Your task to perform on an android device: Add acer nitro to the cart on bestbuy.com, then select checkout. Image 0: 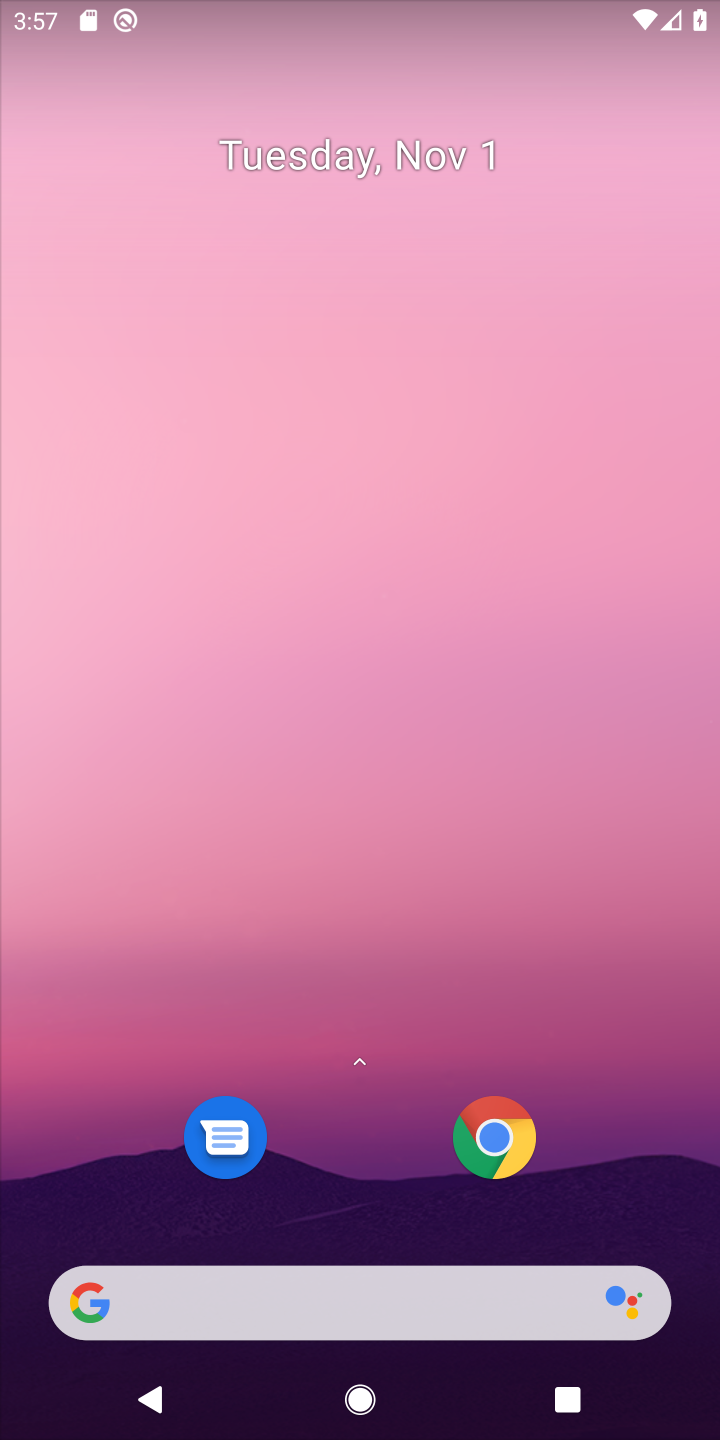
Step 0: click (422, 1289)
Your task to perform on an android device: Add acer nitro to the cart on bestbuy.com, then select checkout. Image 1: 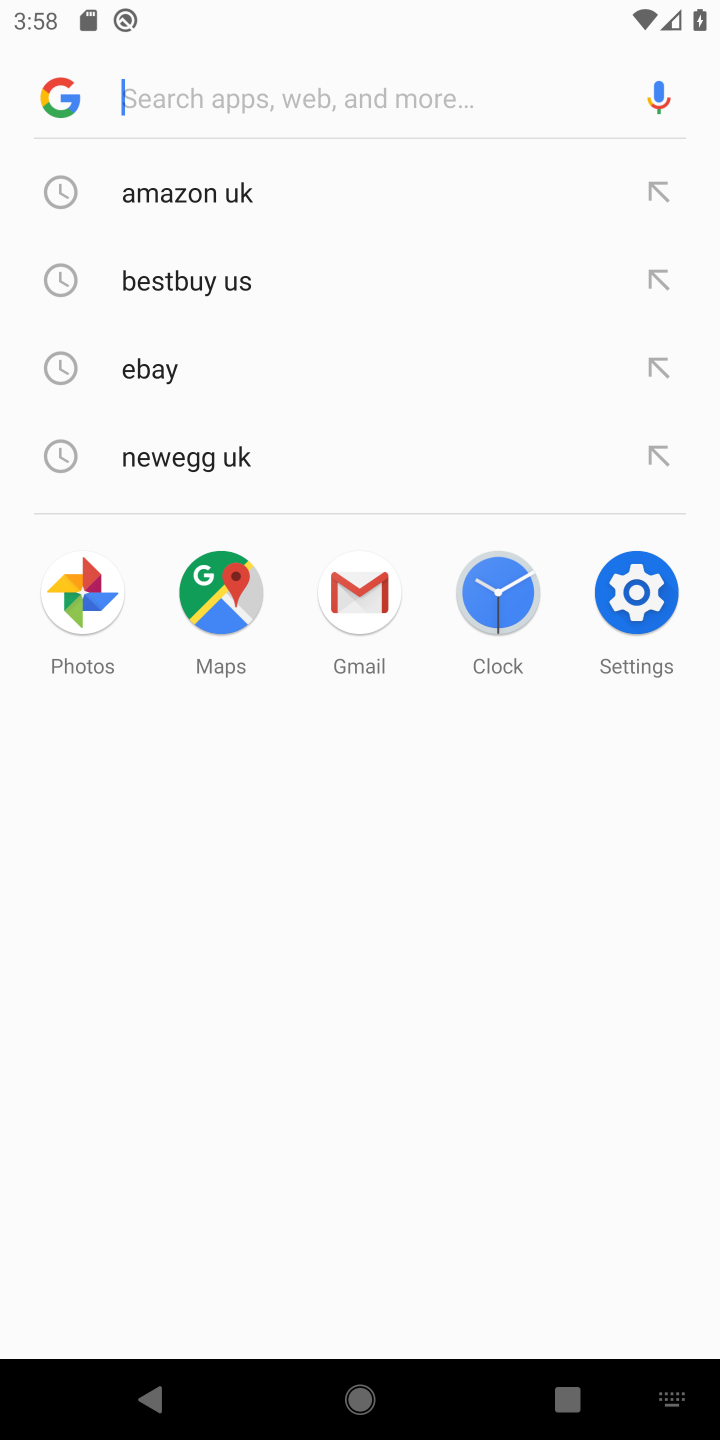
Step 1: click (371, 294)
Your task to perform on an android device: Add acer nitro to the cart on bestbuy.com, then select checkout. Image 2: 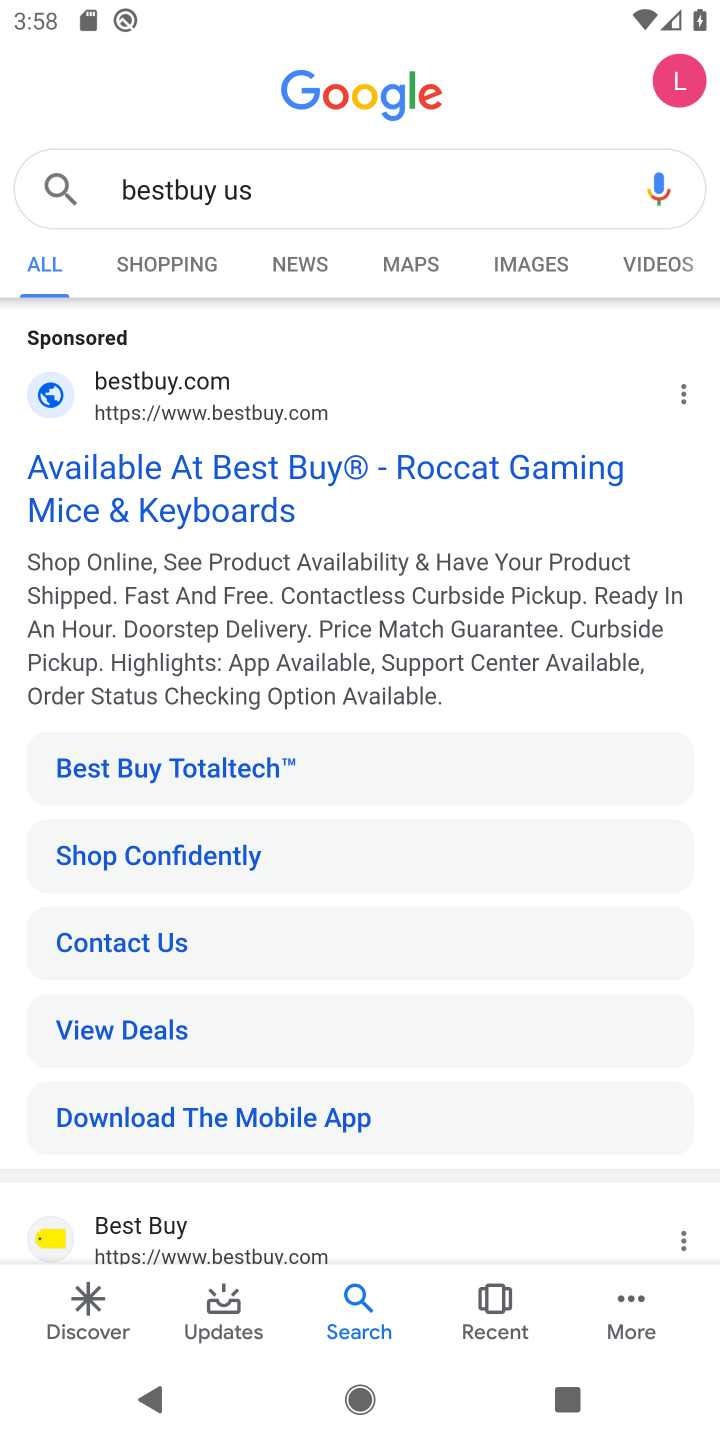
Step 2: click (317, 514)
Your task to perform on an android device: Add acer nitro to the cart on bestbuy.com, then select checkout. Image 3: 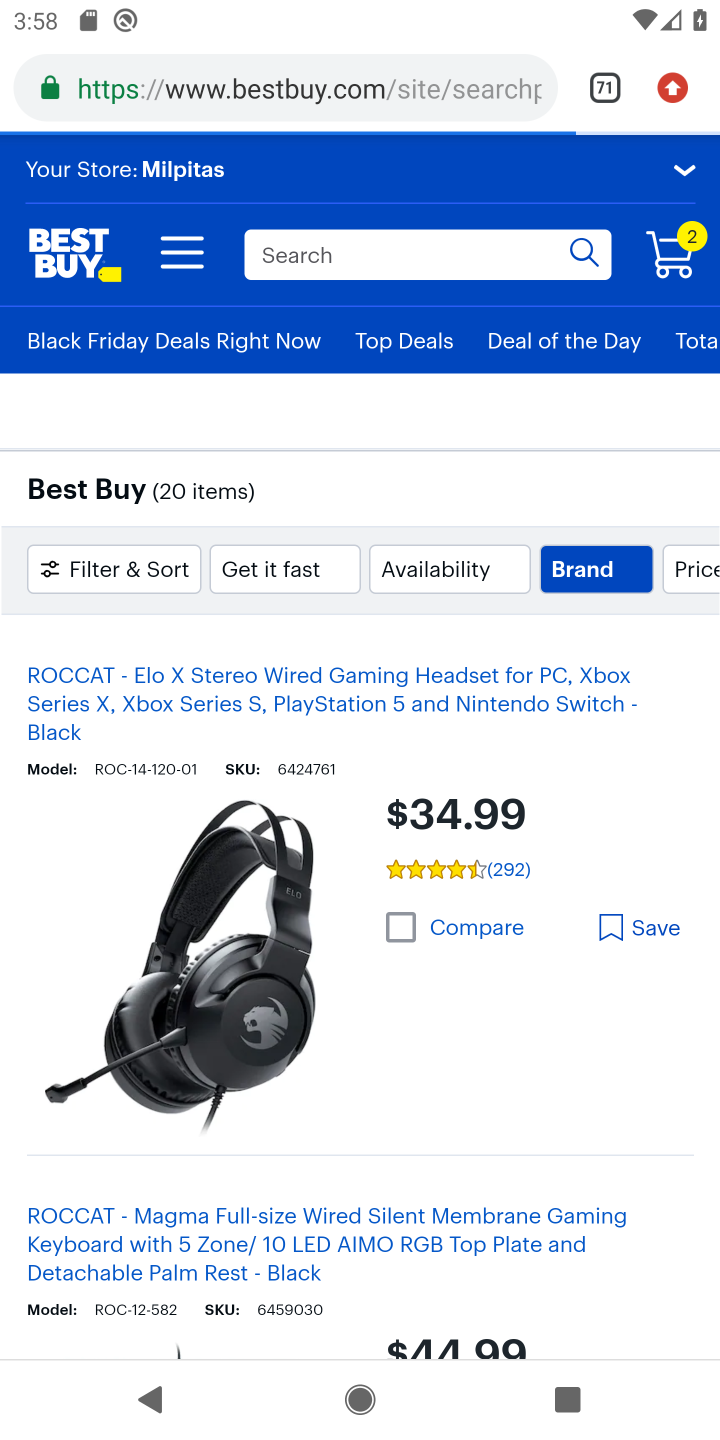
Step 3: task complete